Your task to perform on an android device: Go to privacy settings Image 0: 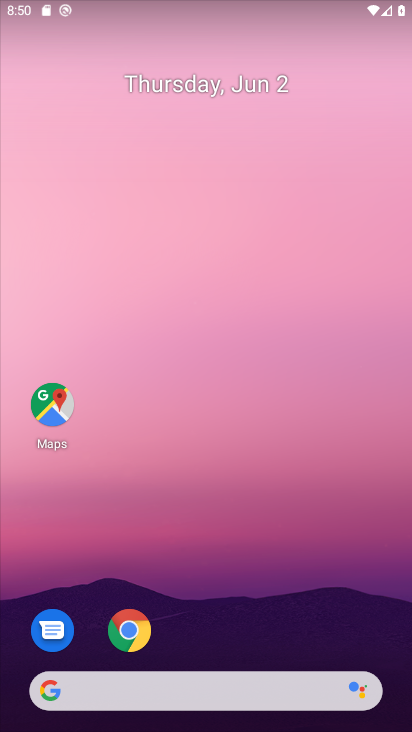
Step 0: drag from (218, 629) to (164, 27)
Your task to perform on an android device: Go to privacy settings Image 1: 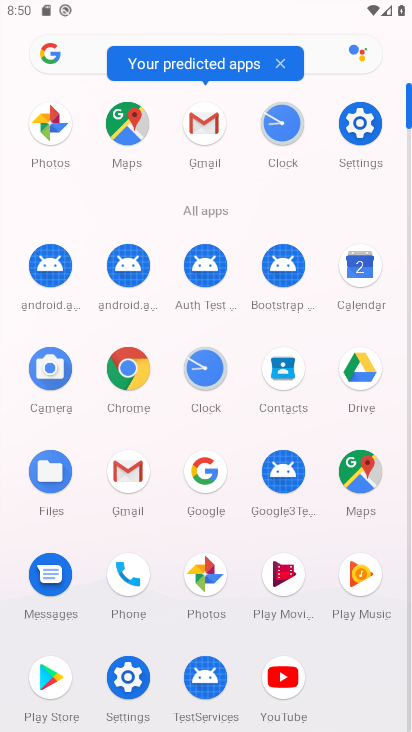
Step 1: click (364, 121)
Your task to perform on an android device: Go to privacy settings Image 2: 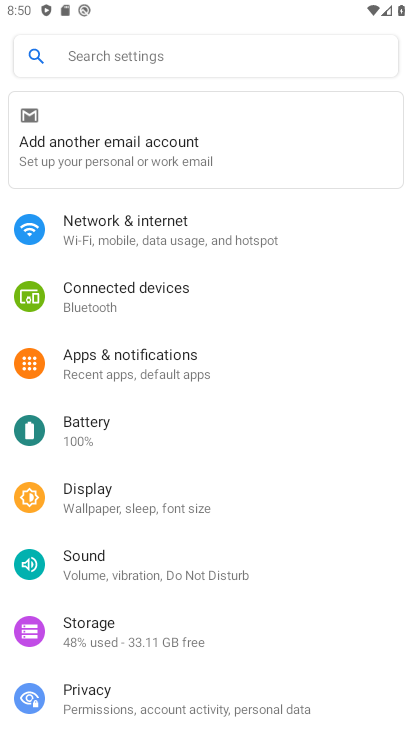
Step 2: click (125, 696)
Your task to perform on an android device: Go to privacy settings Image 3: 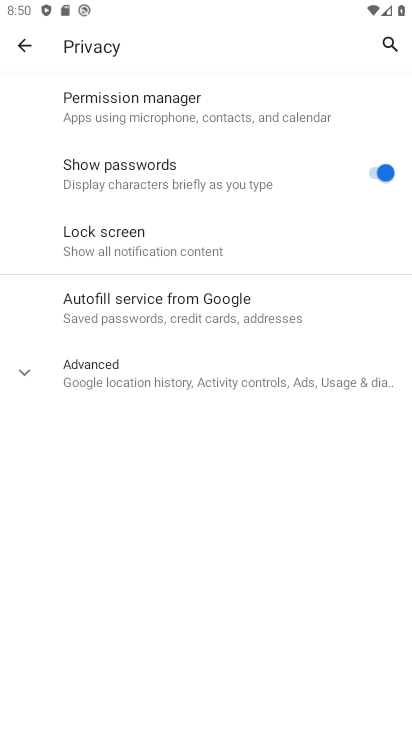
Step 3: task complete